Your task to perform on an android device: open app "Roku - Official Remote Control" (install if not already installed) Image 0: 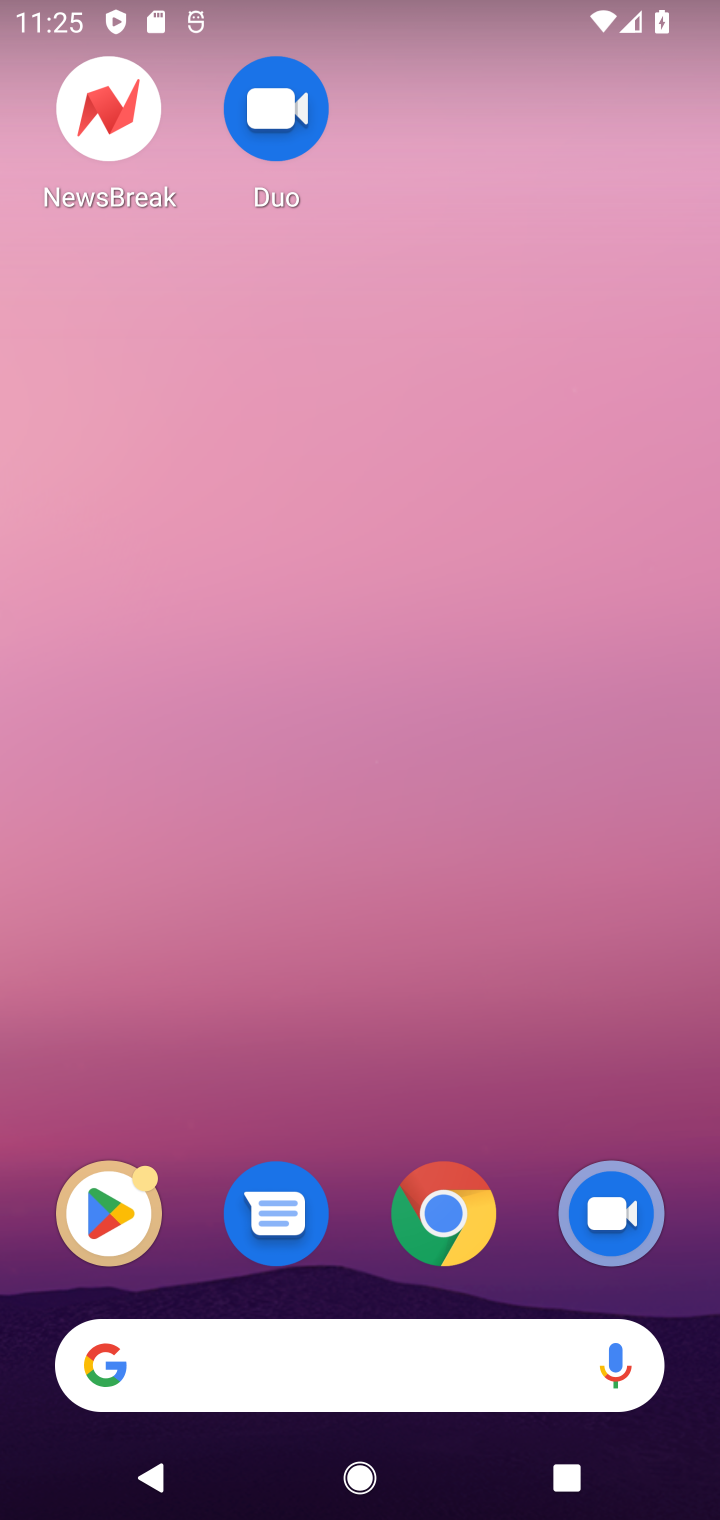
Step 0: drag from (406, 883) to (406, 498)
Your task to perform on an android device: open app "Roku - Official Remote Control" (install if not already installed) Image 1: 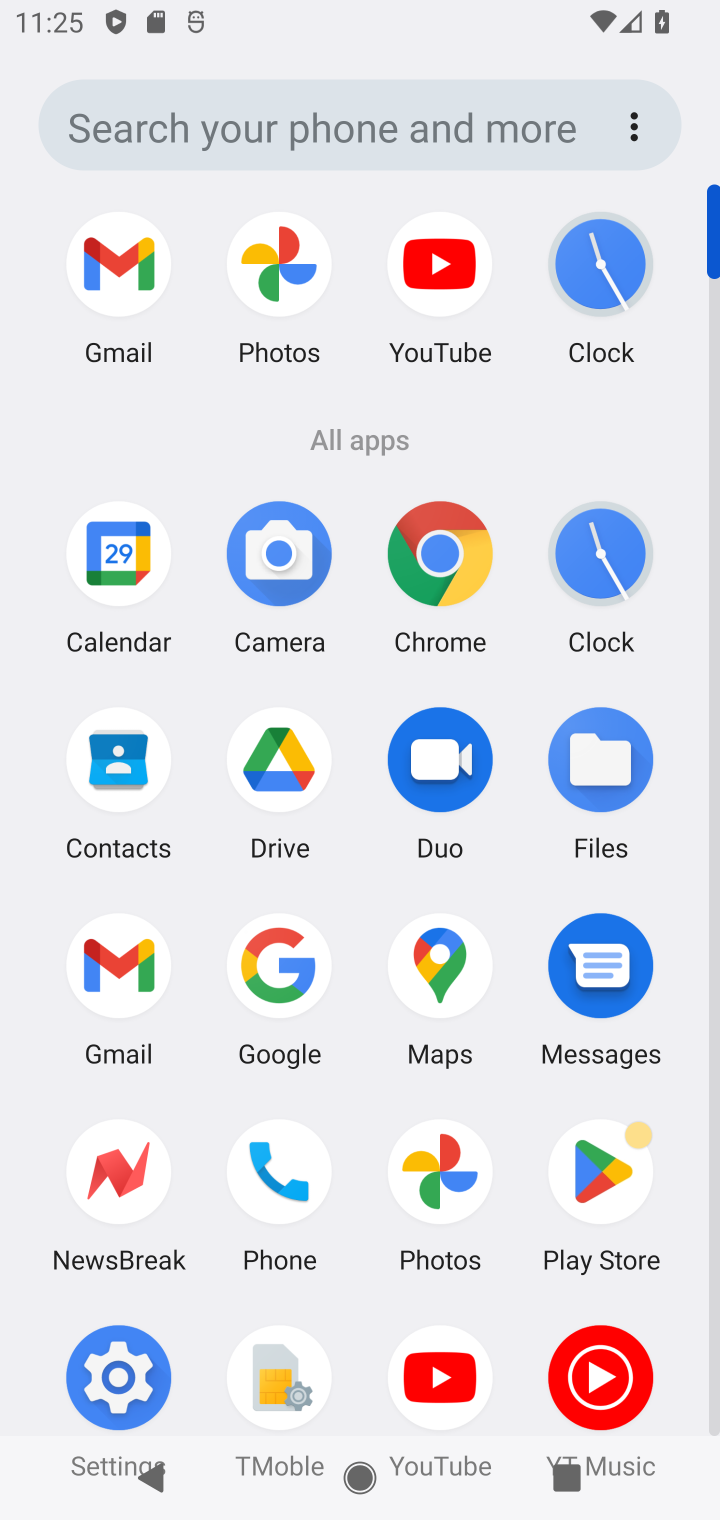
Step 1: click (601, 1167)
Your task to perform on an android device: open app "Roku - Official Remote Control" (install if not already installed) Image 2: 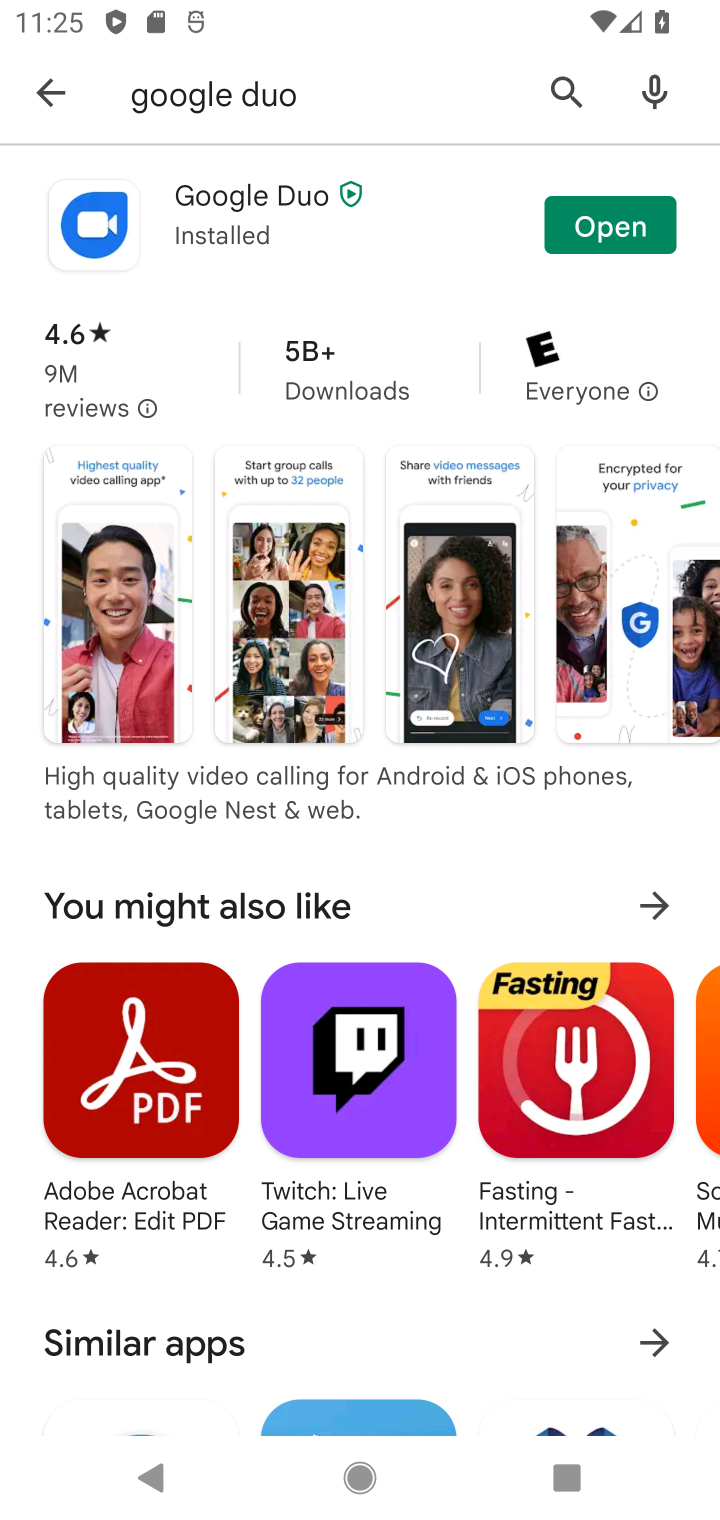
Step 2: click (550, 72)
Your task to perform on an android device: open app "Roku - Official Remote Control" (install if not already installed) Image 3: 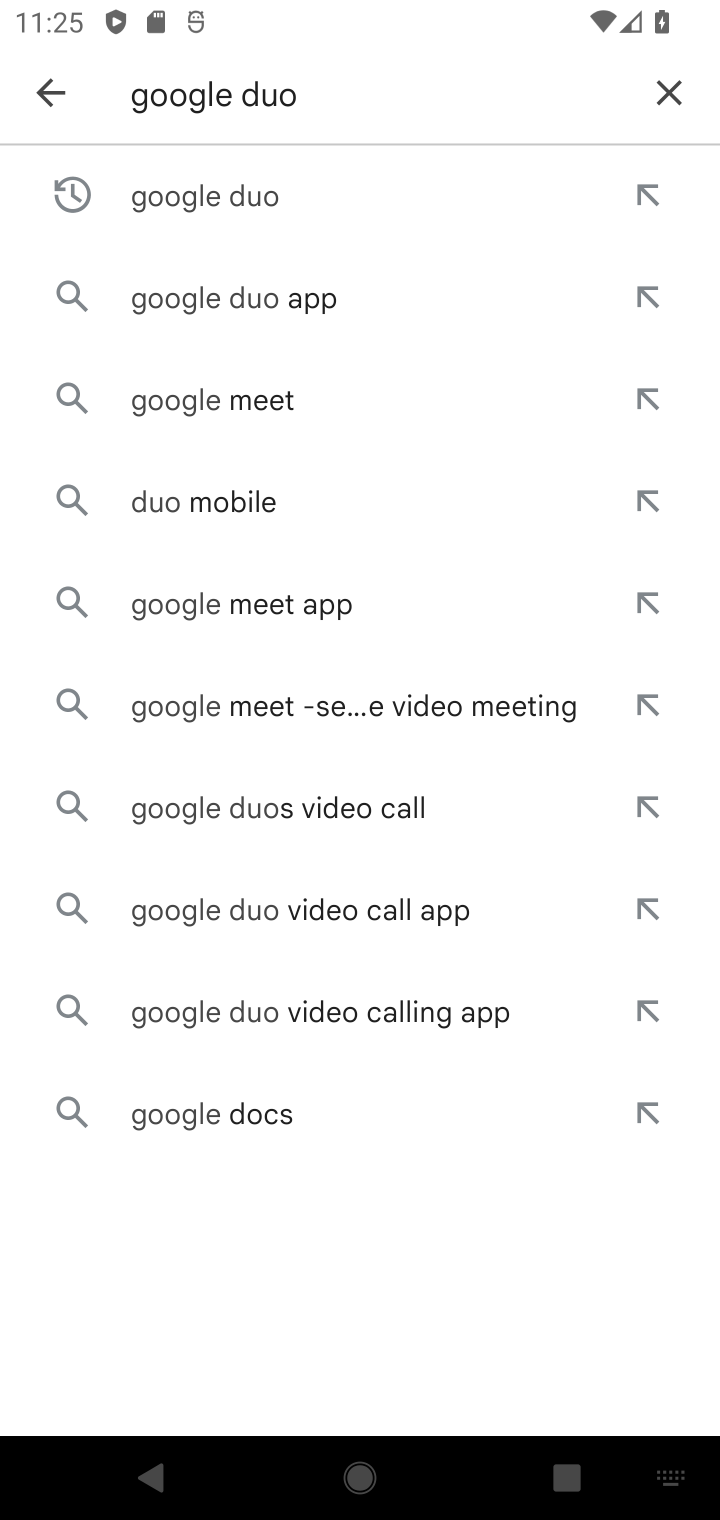
Step 3: click (668, 84)
Your task to perform on an android device: open app "Roku - Official Remote Control" (install if not already installed) Image 4: 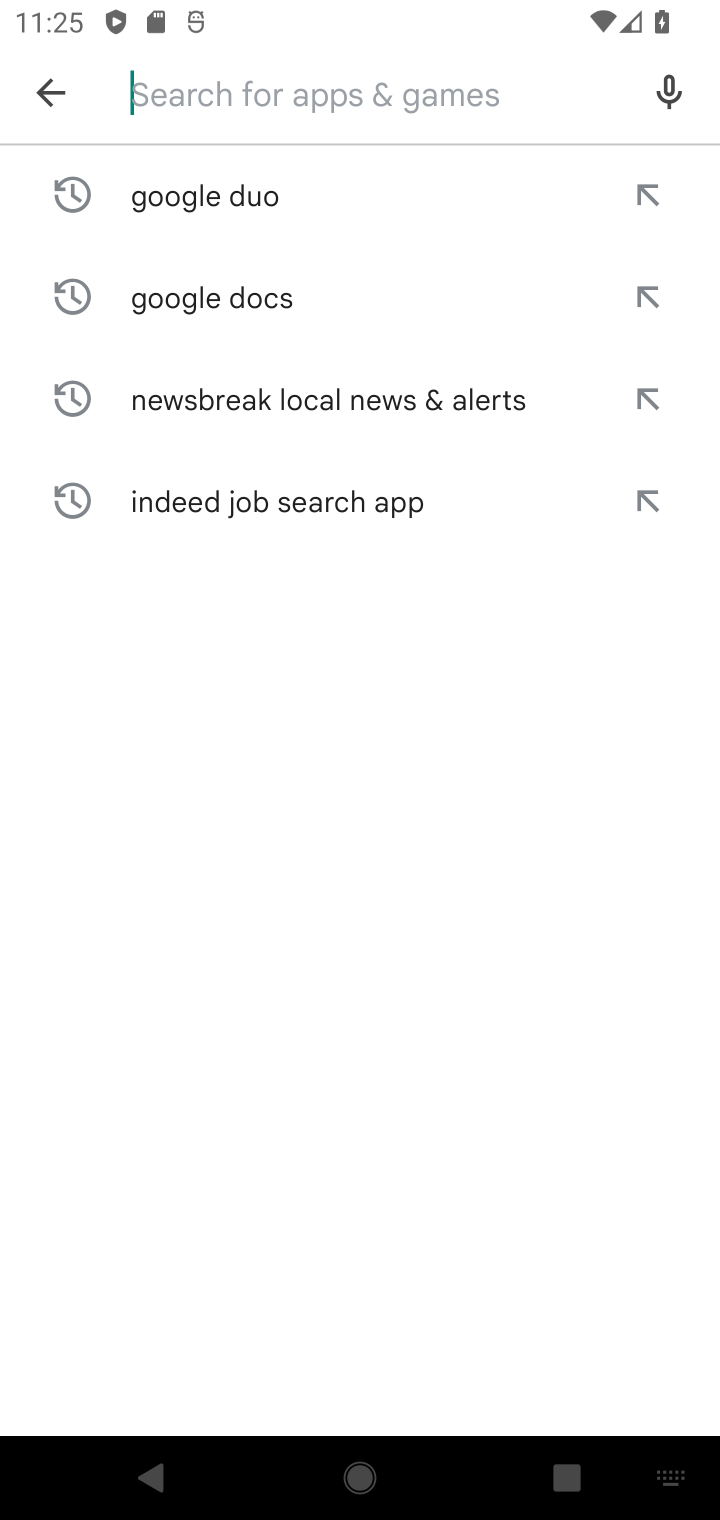
Step 4: type "Roku - Official Remote Control"
Your task to perform on an android device: open app "Roku - Official Remote Control" (install if not already installed) Image 5: 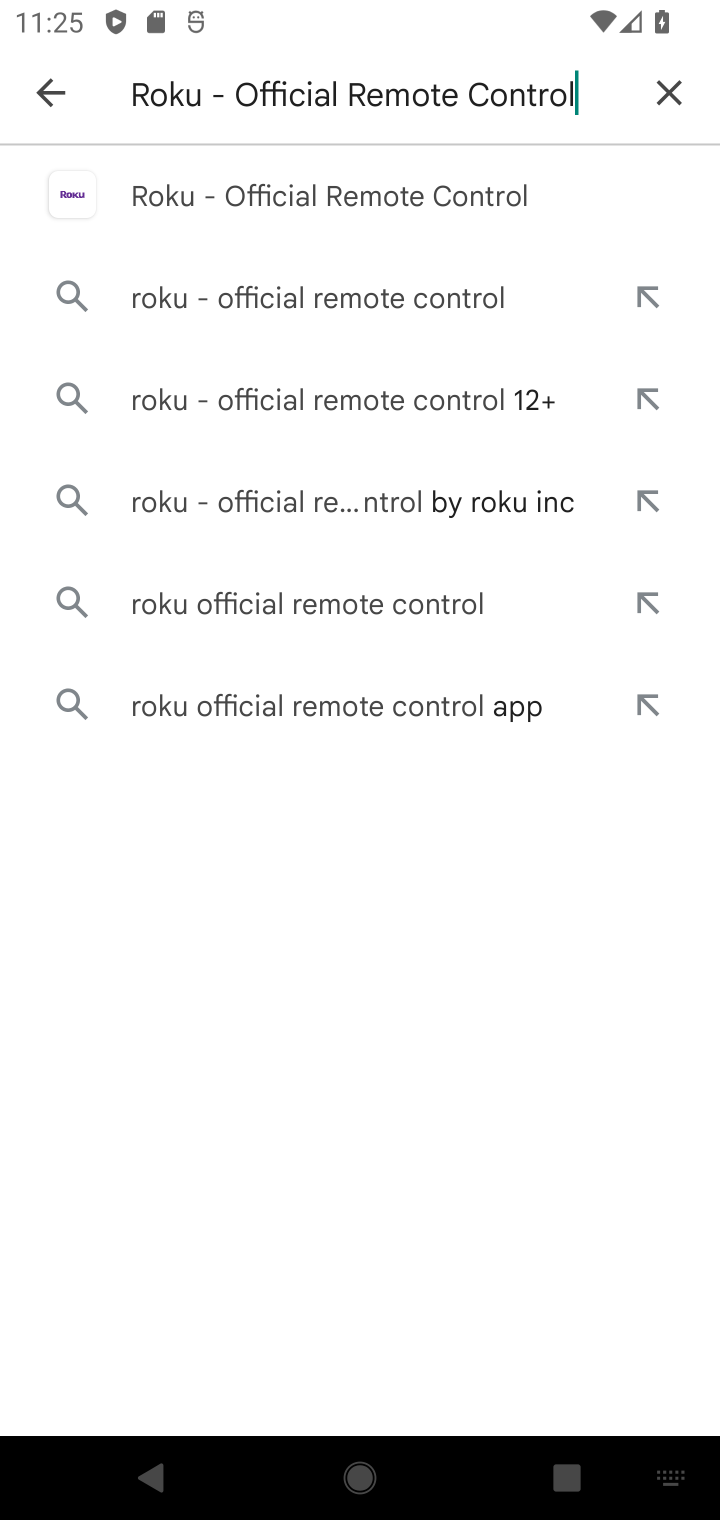
Step 5: click (410, 186)
Your task to perform on an android device: open app "Roku - Official Remote Control" (install if not already installed) Image 6: 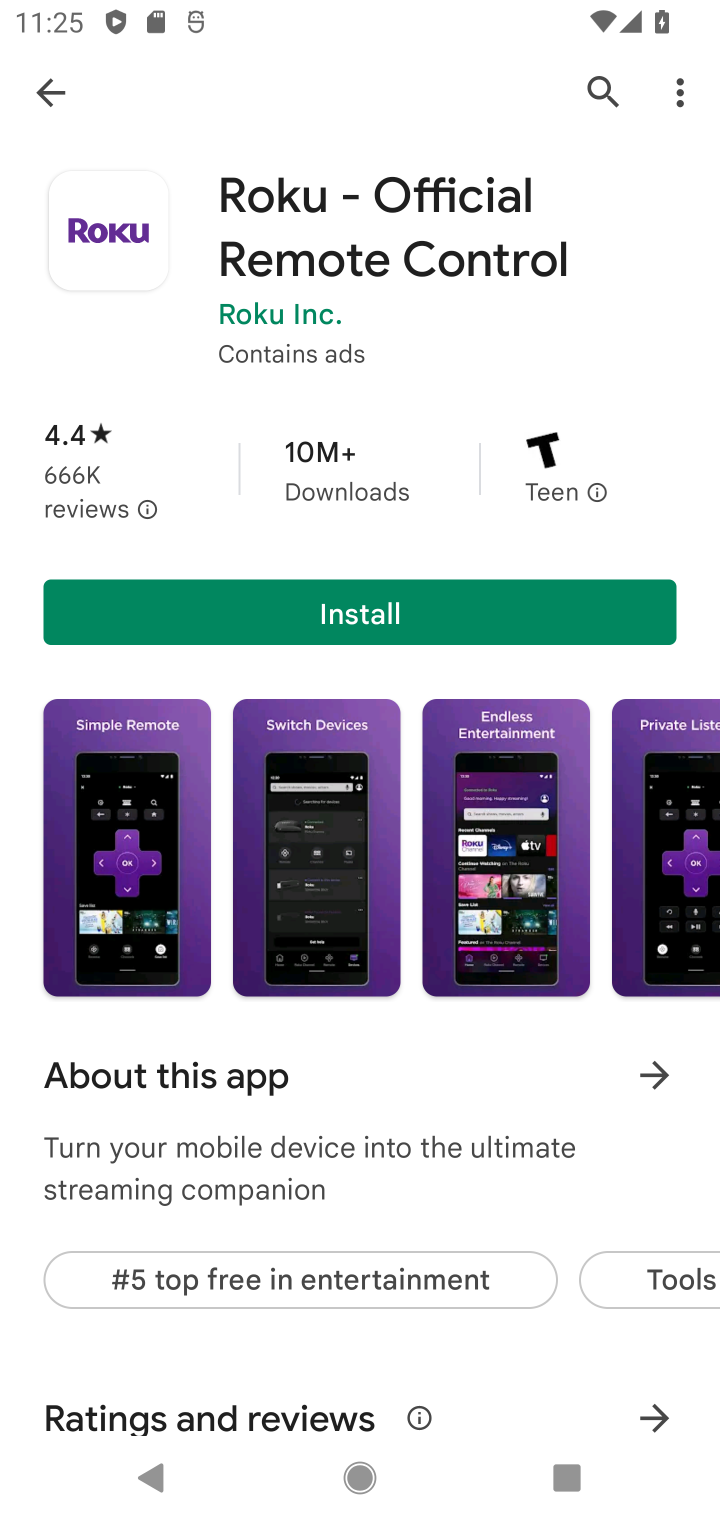
Step 6: click (422, 619)
Your task to perform on an android device: open app "Roku - Official Remote Control" (install if not already installed) Image 7: 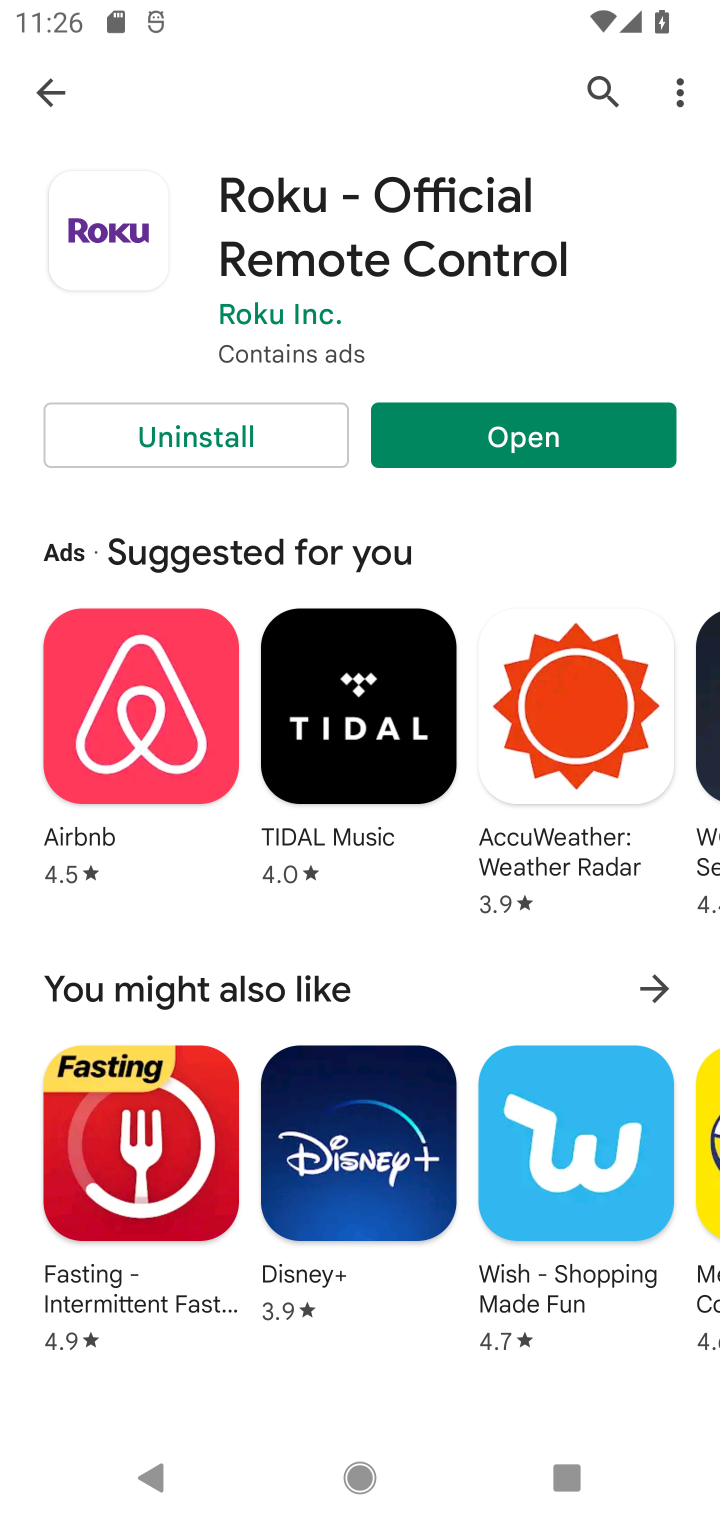
Step 7: task complete